Your task to perform on an android device: Go to location settings Image 0: 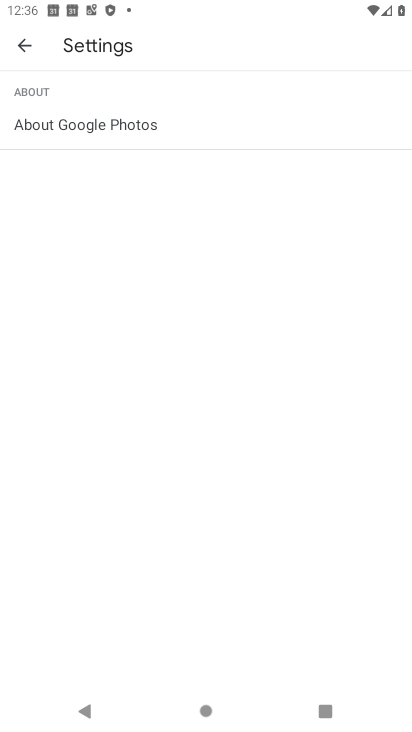
Step 0: press home button
Your task to perform on an android device: Go to location settings Image 1: 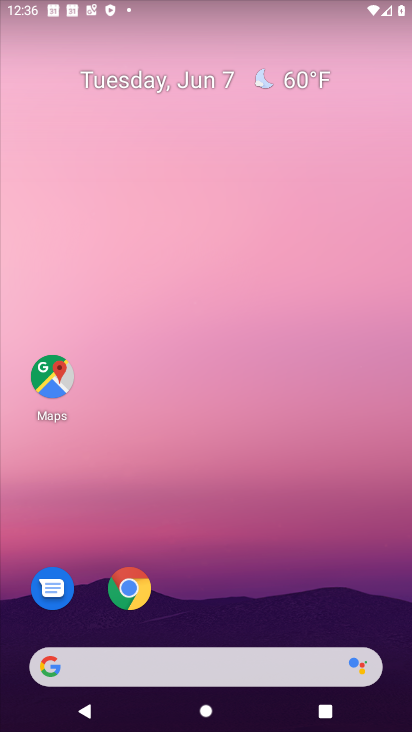
Step 1: drag from (127, 685) to (201, 20)
Your task to perform on an android device: Go to location settings Image 2: 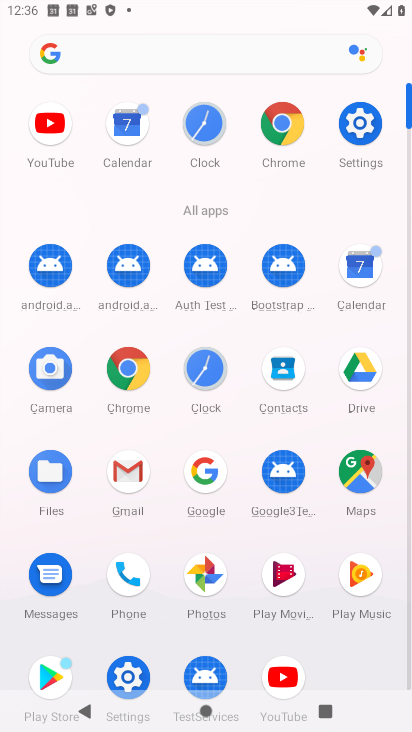
Step 2: click (370, 119)
Your task to perform on an android device: Go to location settings Image 3: 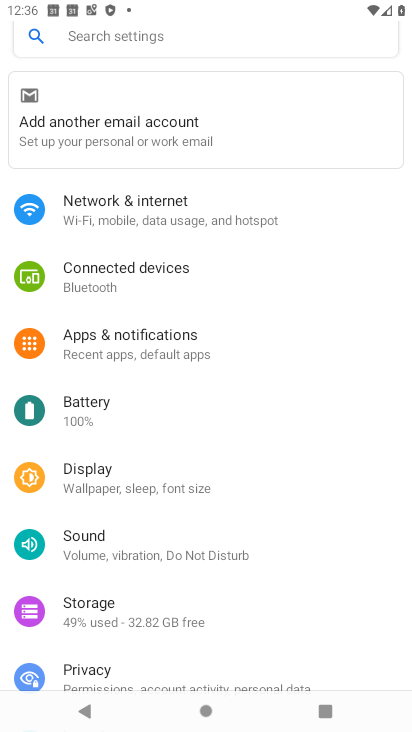
Step 3: drag from (111, 493) to (284, 5)
Your task to perform on an android device: Go to location settings Image 4: 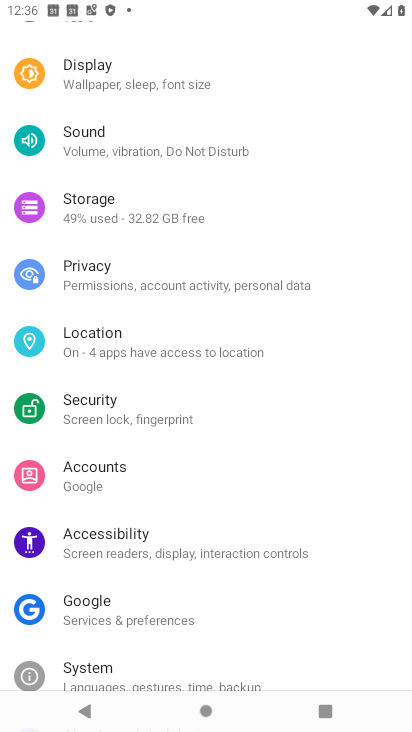
Step 4: click (227, 332)
Your task to perform on an android device: Go to location settings Image 5: 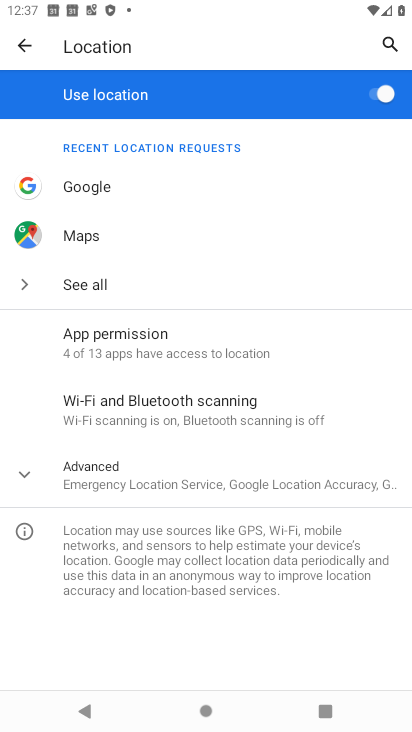
Step 5: task complete